Your task to perform on an android device: Go to display settings Image 0: 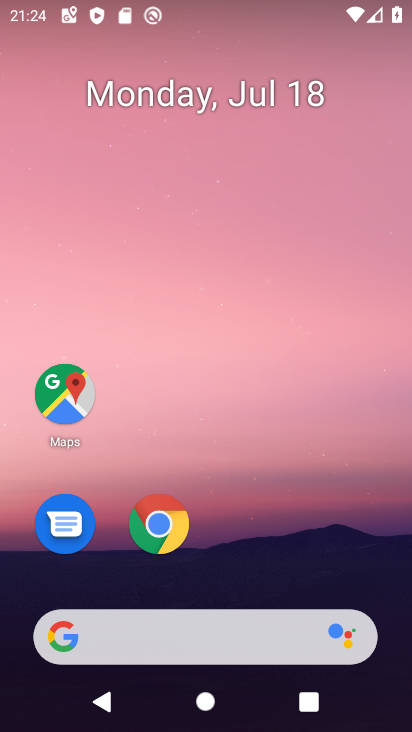
Step 0: drag from (261, 506) to (298, 46)
Your task to perform on an android device: Go to display settings Image 1: 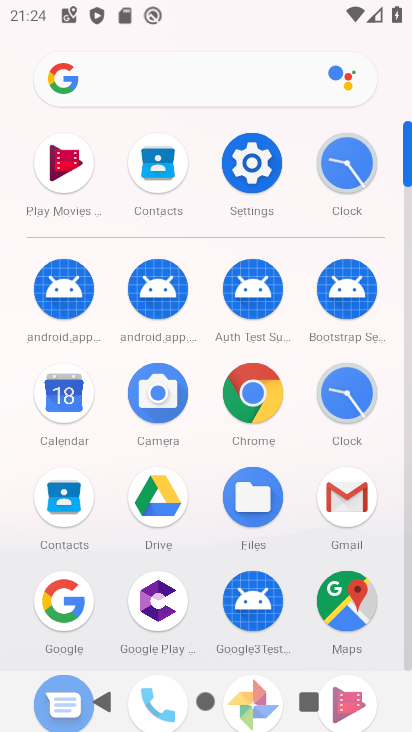
Step 1: click (247, 163)
Your task to perform on an android device: Go to display settings Image 2: 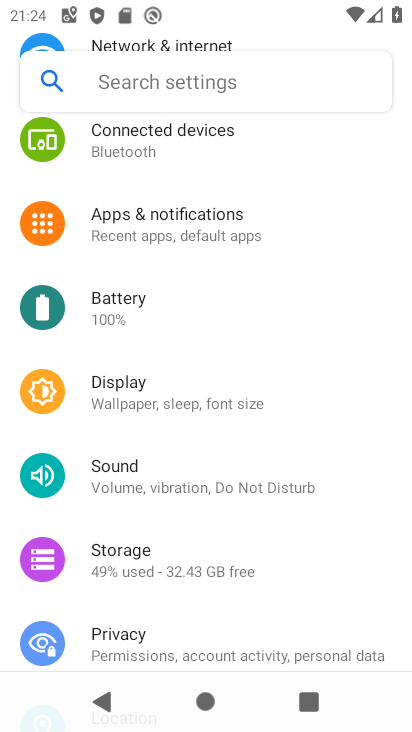
Step 2: click (153, 384)
Your task to perform on an android device: Go to display settings Image 3: 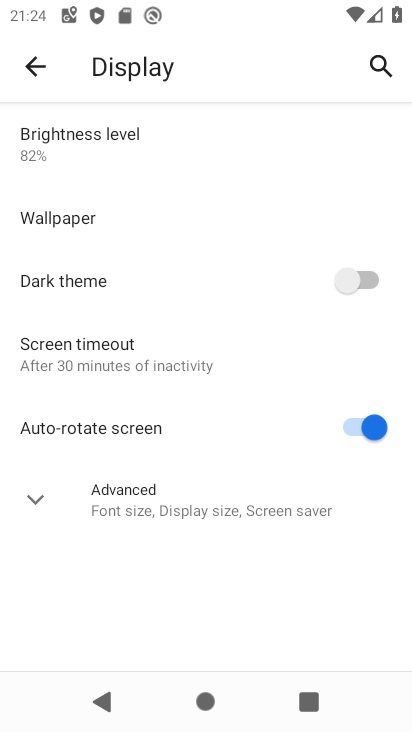
Step 3: task complete